Your task to perform on an android device: set the timer Image 0: 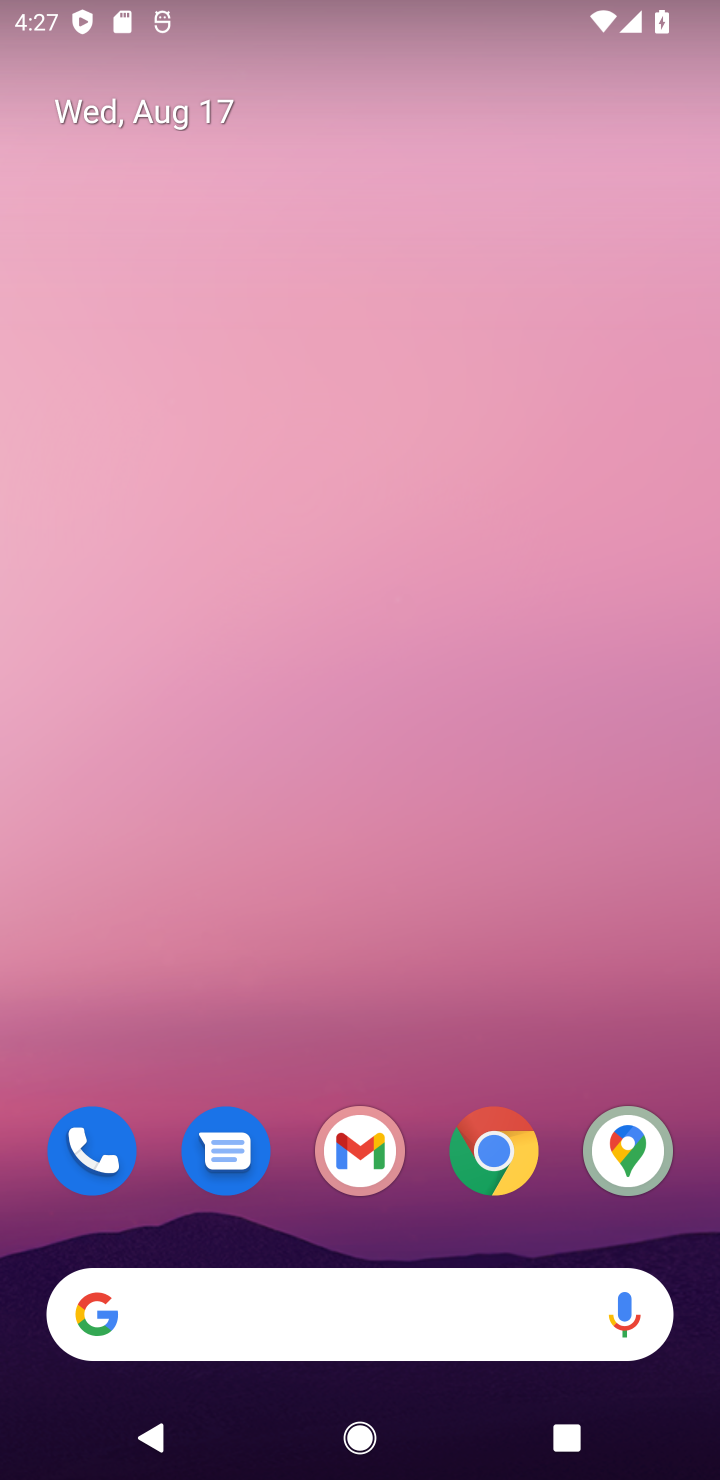
Step 0: drag from (313, 1235) to (251, 50)
Your task to perform on an android device: set the timer Image 1: 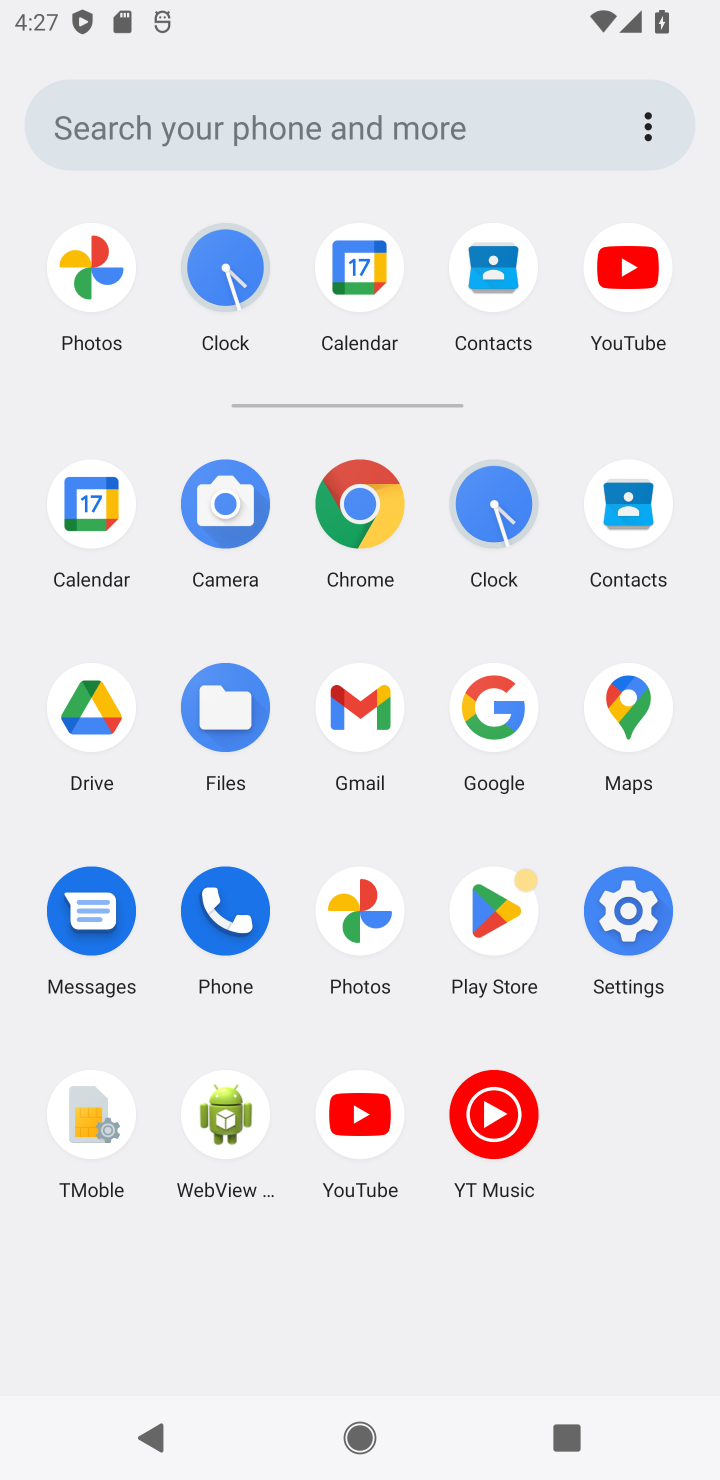
Step 1: click (228, 323)
Your task to perform on an android device: set the timer Image 2: 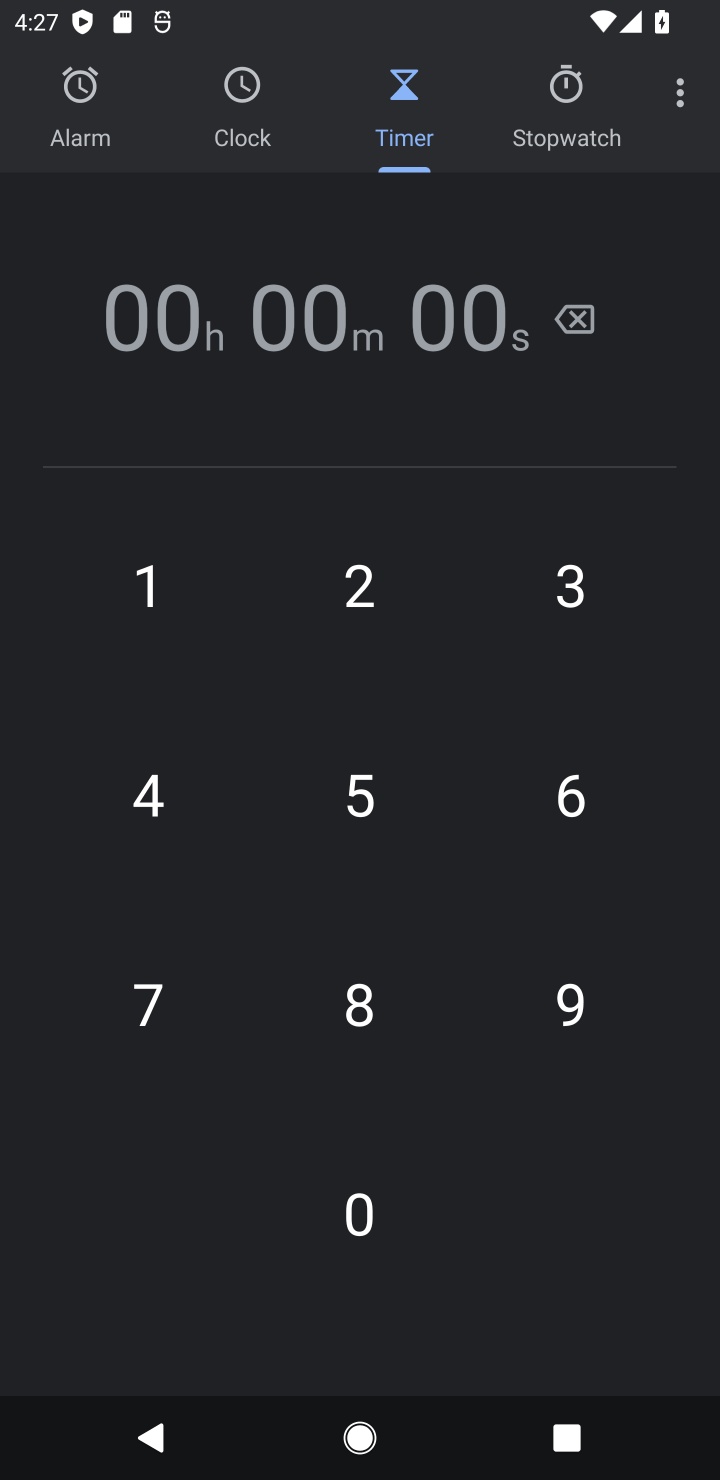
Step 2: task complete